Your task to perform on an android device: remove spam from my inbox in the gmail app Image 0: 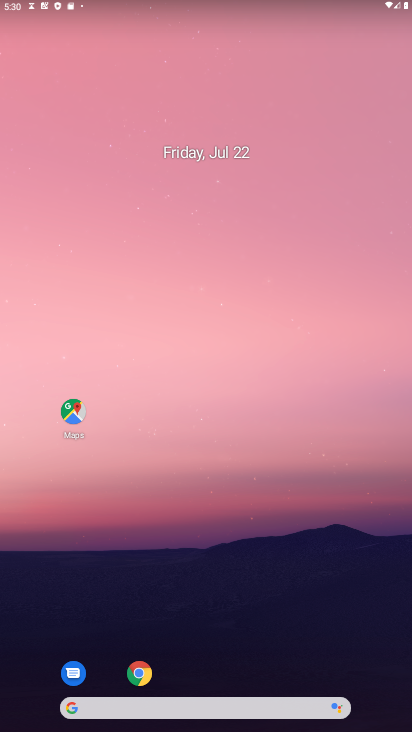
Step 0: press home button
Your task to perform on an android device: remove spam from my inbox in the gmail app Image 1: 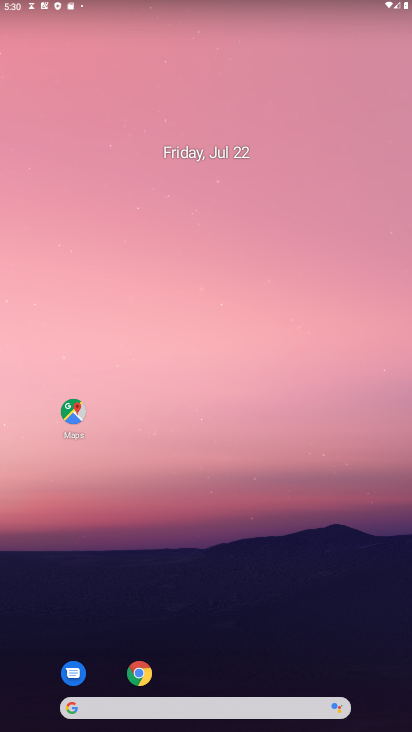
Step 1: drag from (221, 654) to (186, 133)
Your task to perform on an android device: remove spam from my inbox in the gmail app Image 2: 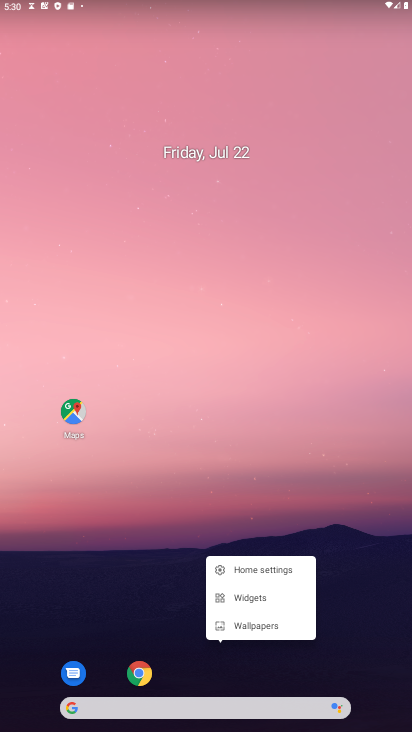
Step 2: drag from (169, 612) to (286, 9)
Your task to perform on an android device: remove spam from my inbox in the gmail app Image 3: 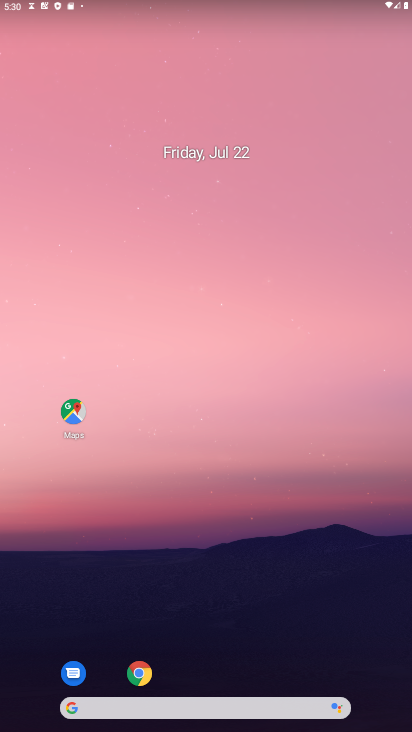
Step 3: drag from (233, 602) to (282, 123)
Your task to perform on an android device: remove spam from my inbox in the gmail app Image 4: 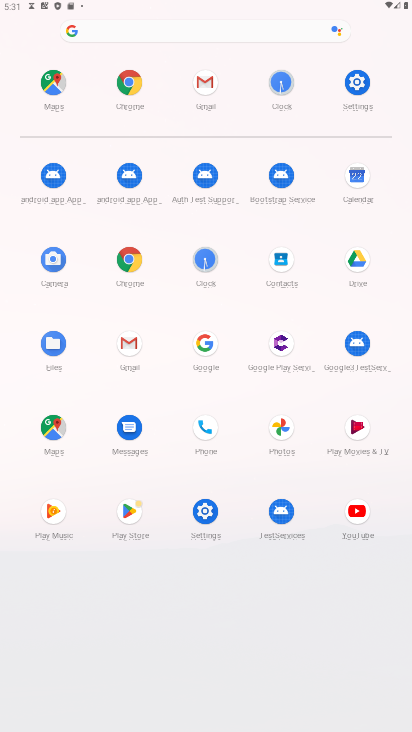
Step 4: click (205, 89)
Your task to perform on an android device: remove spam from my inbox in the gmail app Image 5: 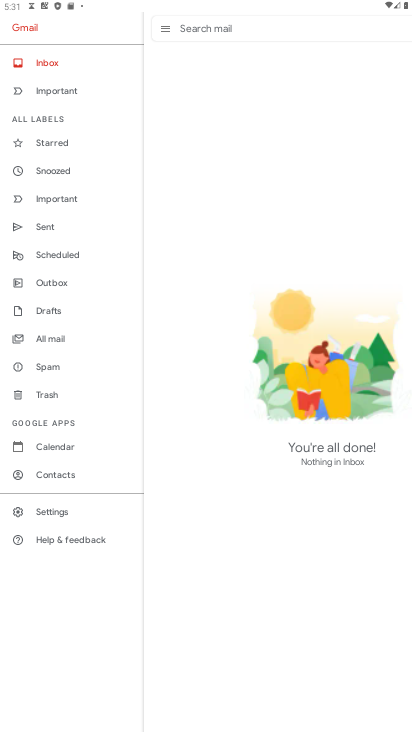
Step 5: click (45, 364)
Your task to perform on an android device: remove spam from my inbox in the gmail app Image 6: 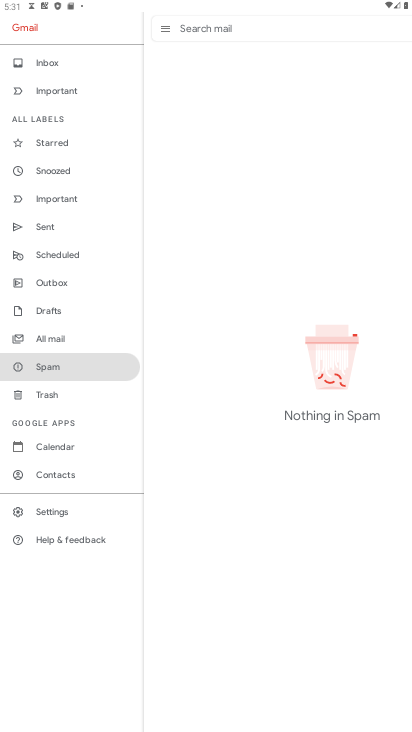
Step 6: task complete